Your task to perform on an android device: Go to privacy settings Image 0: 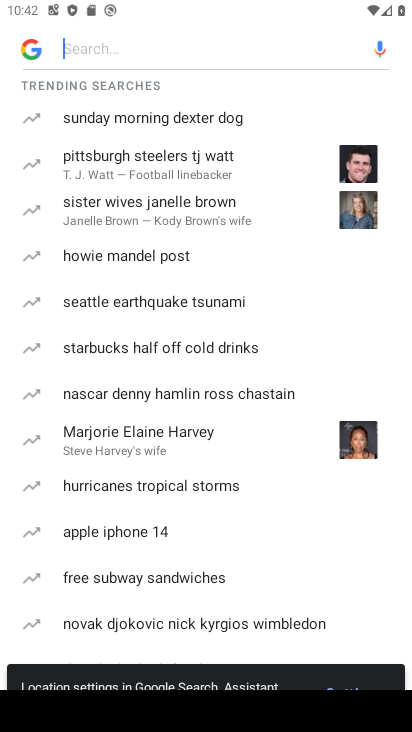
Step 0: press home button
Your task to perform on an android device: Go to privacy settings Image 1: 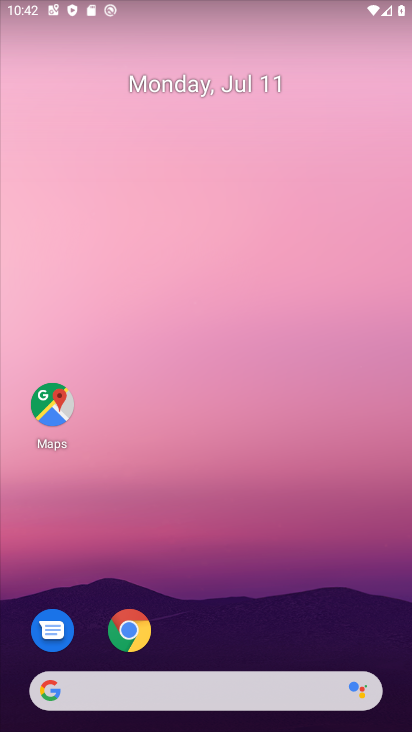
Step 1: drag from (286, 587) to (222, 151)
Your task to perform on an android device: Go to privacy settings Image 2: 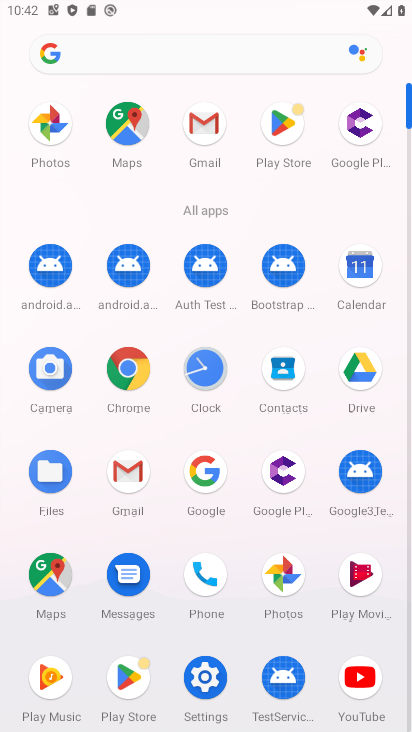
Step 2: click (211, 682)
Your task to perform on an android device: Go to privacy settings Image 3: 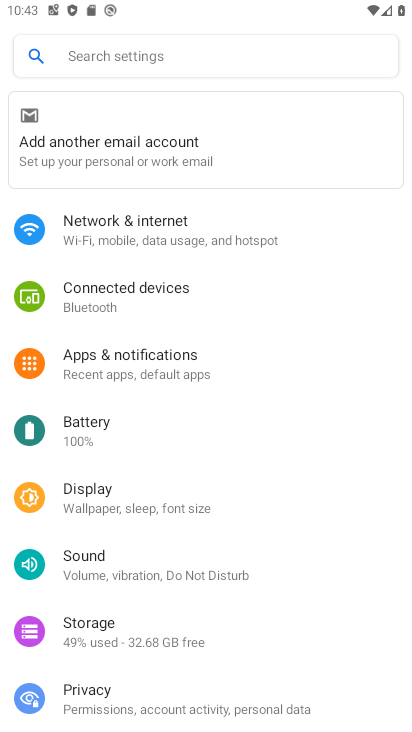
Step 3: click (187, 705)
Your task to perform on an android device: Go to privacy settings Image 4: 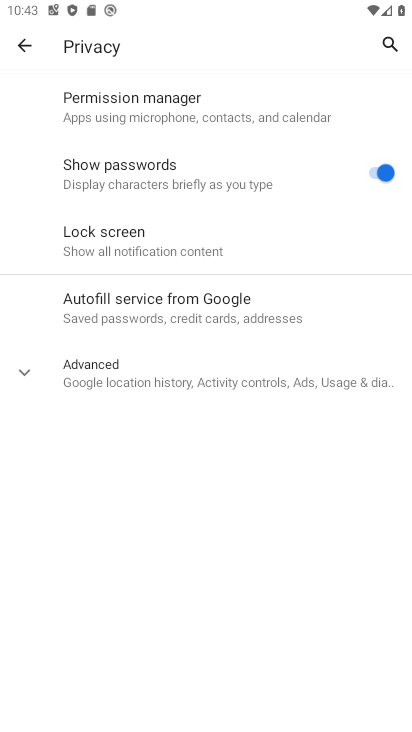
Step 4: task complete